Your task to perform on an android device: empty trash in google photos Image 0: 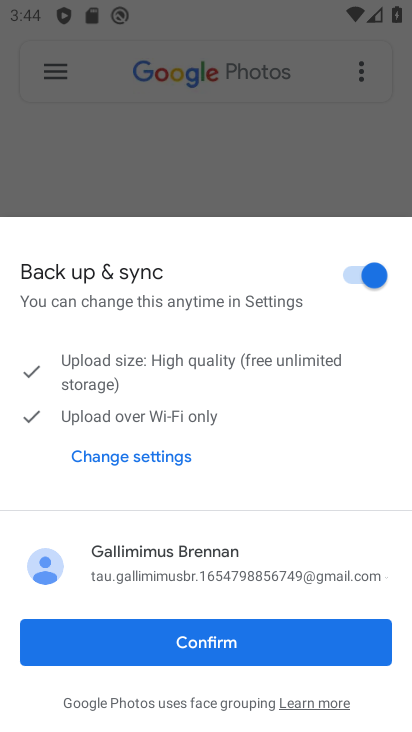
Step 0: click (355, 639)
Your task to perform on an android device: empty trash in google photos Image 1: 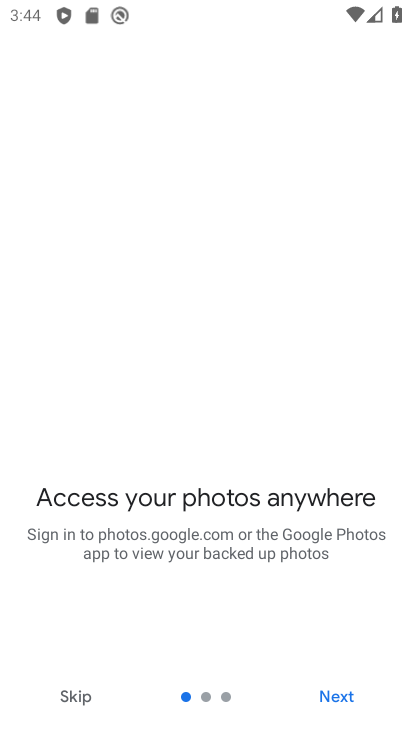
Step 1: click (338, 690)
Your task to perform on an android device: empty trash in google photos Image 2: 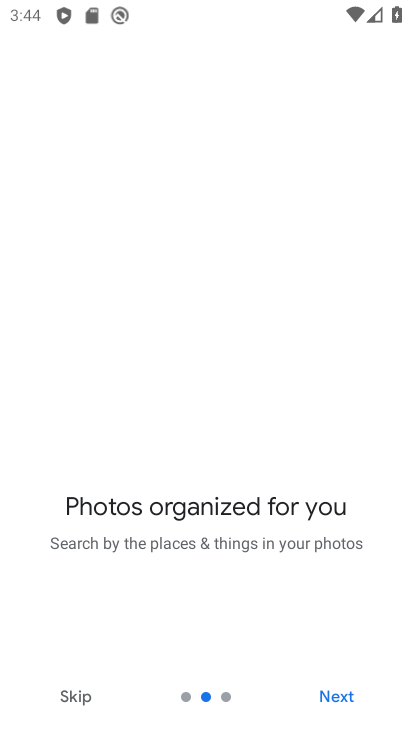
Step 2: click (338, 690)
Your task to perform on an android device: empty trash in google photos Image 3: 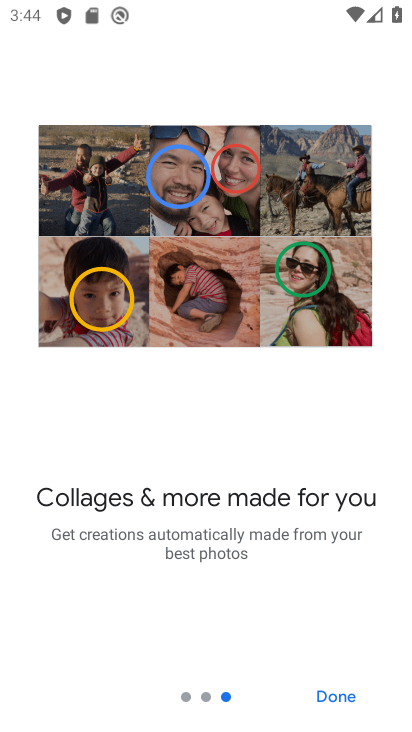
Step 3: click (338, 692)
Your task to perform on an android device: empty trash in google photos Image 4: 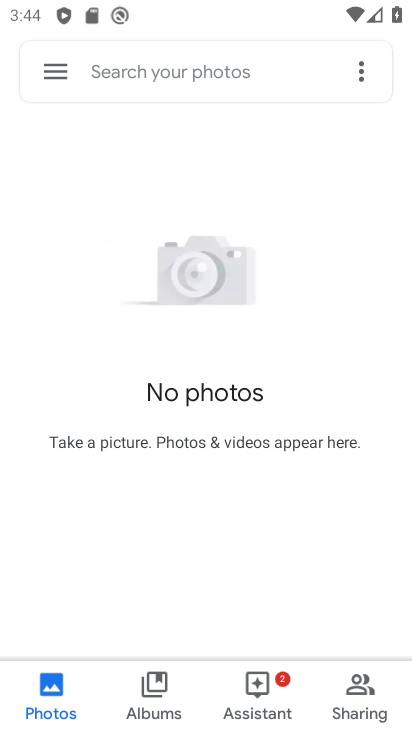
Step 4: click (59, 69)
Your task to perform on an android device: empty trash in google photos Image 5: 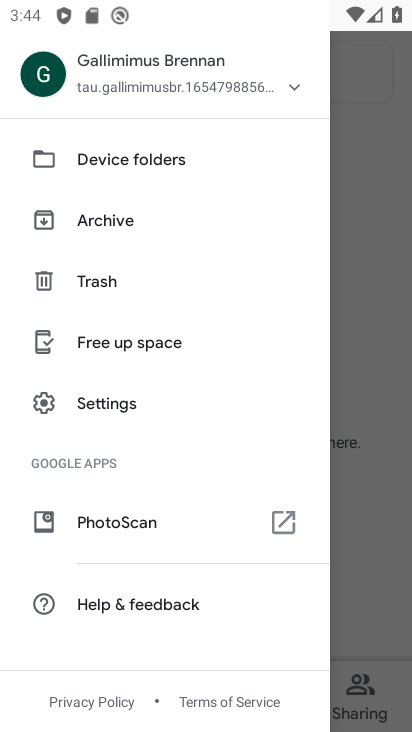
Step 5: click (106, 279)
Your task to perform on an android device: empty trash in google photos Image 6: 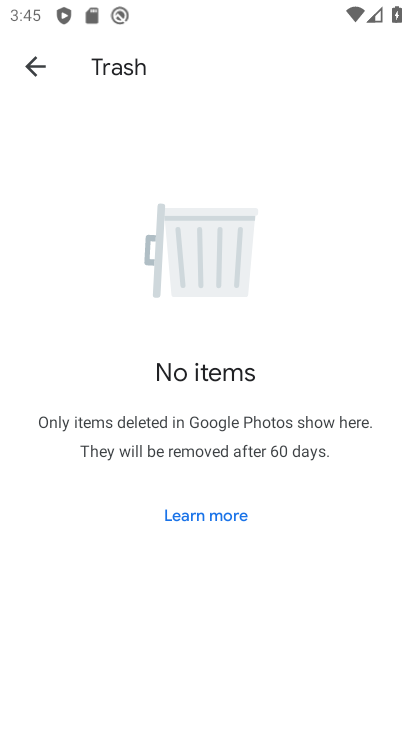
Step 6: task complete